Your task to perform on an android device: turn on notifications settings in the gmail app Image 0: 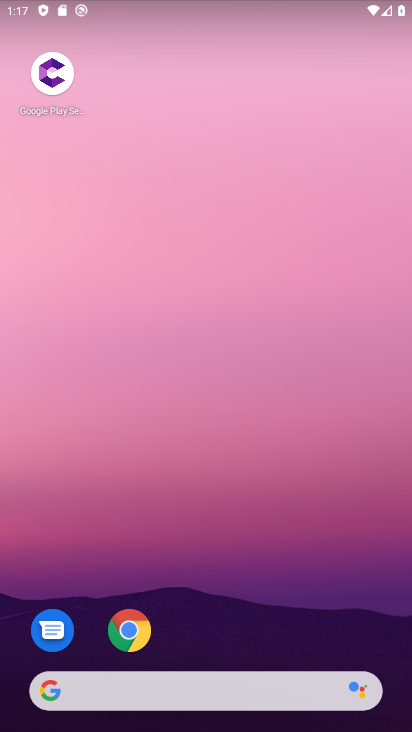
Step 0: drag from (367, 633) to (330, 158)
Your task to perform on an android device: turn on notifications settings in the gmail app Image 1: 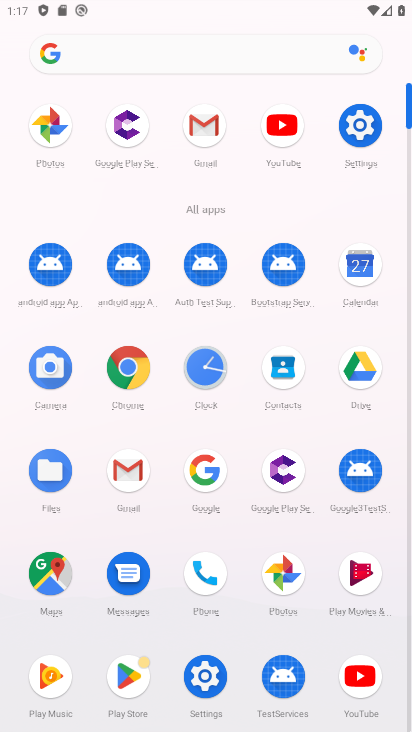
Step 1: click (127, 469)
Your task to perform on an android device: turn on notifications settings in the gmail app Image 2: 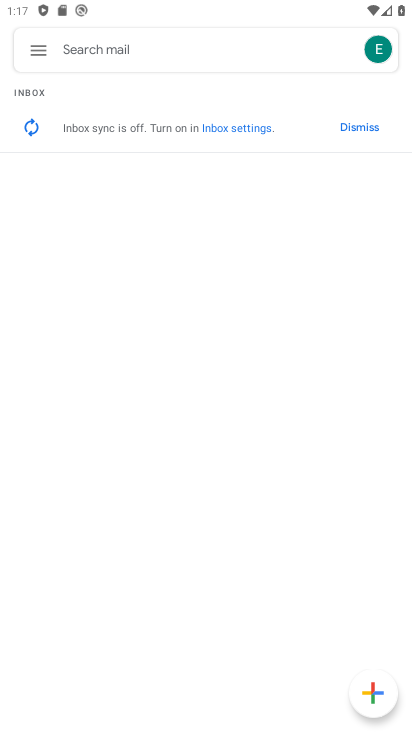
Step 2: click (40, 52)
Your task to perform on an android device: turn on notifications settings in the gmail app Image 3: 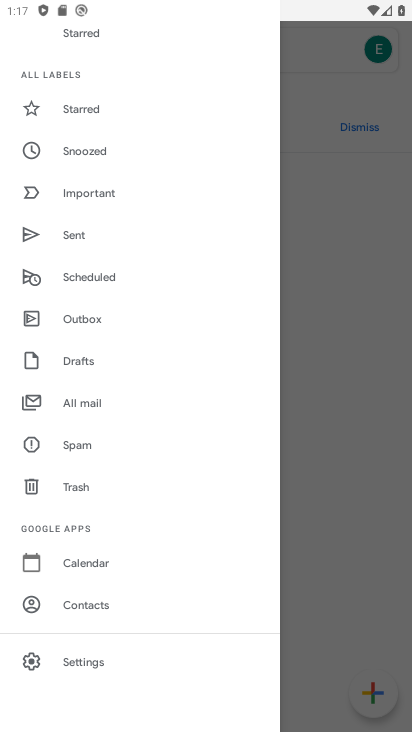
Step 3: click (79, 656)
Your task to perform on an android device: turn on notifications settings in the gmail app Image 4: 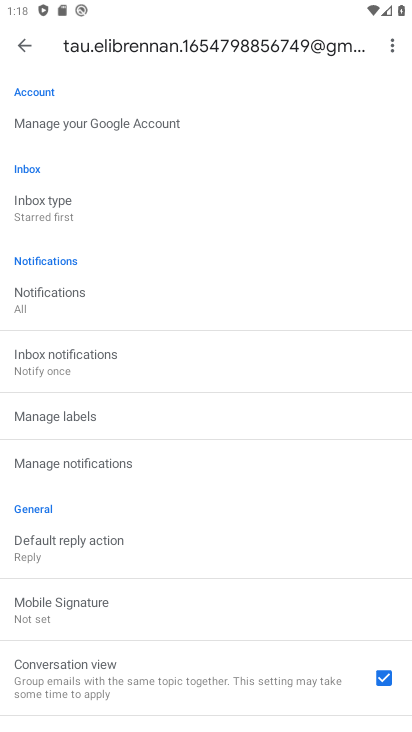
Step 4: click (92, 460)
Your task to perform on an android device: turn on notifications settings in the gmail app Image 5: 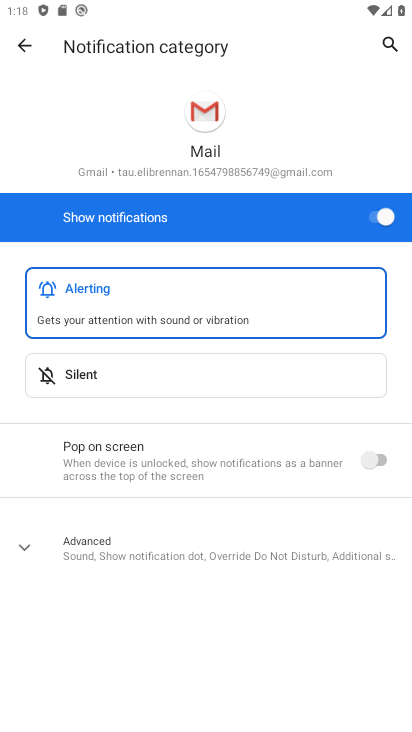
Step 5: task complete